Your task to perform on an android device: turn notification dots off Image 0: 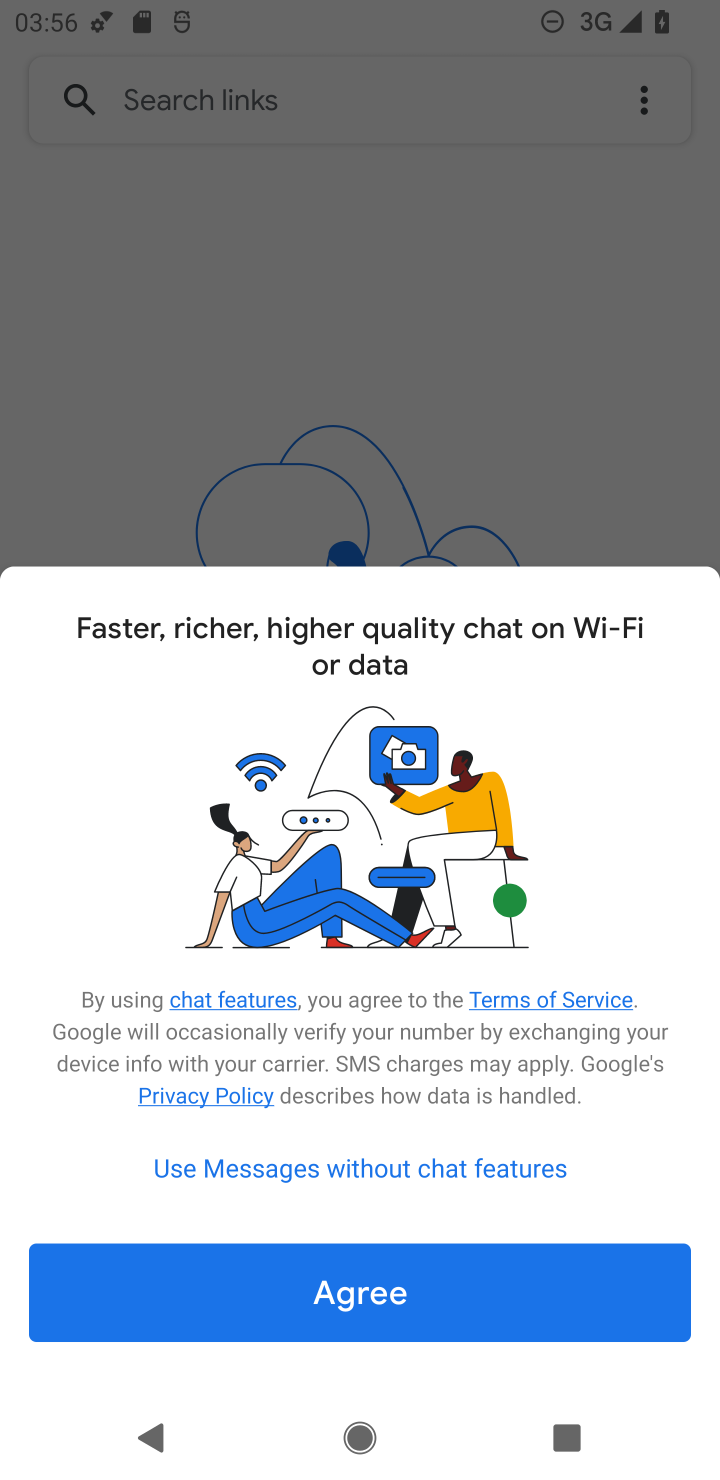
Step 0: press home button
Your task to perform on an android device: turn notification dots off Image 1: 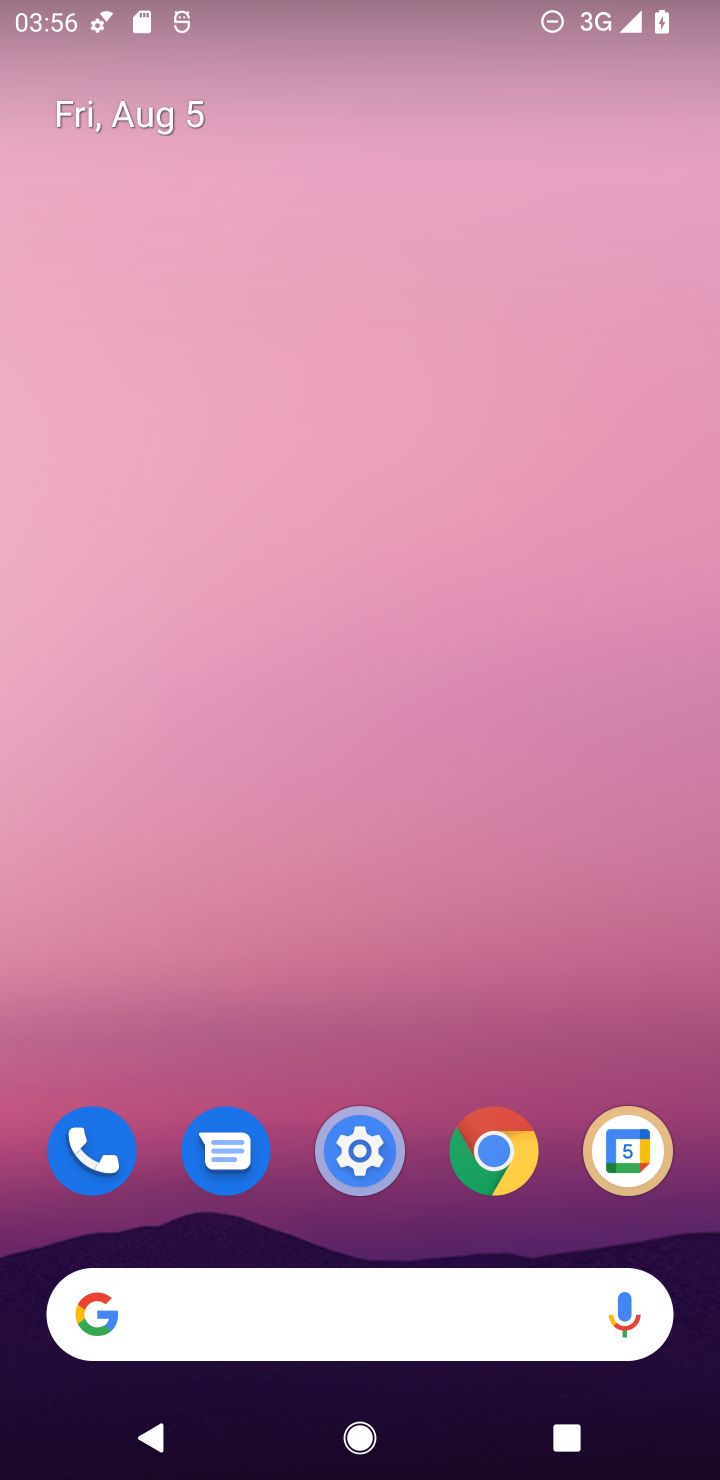
Step 1: click (357, 1126)
Your task to perform on an android device: turn notification dots off Image 2: 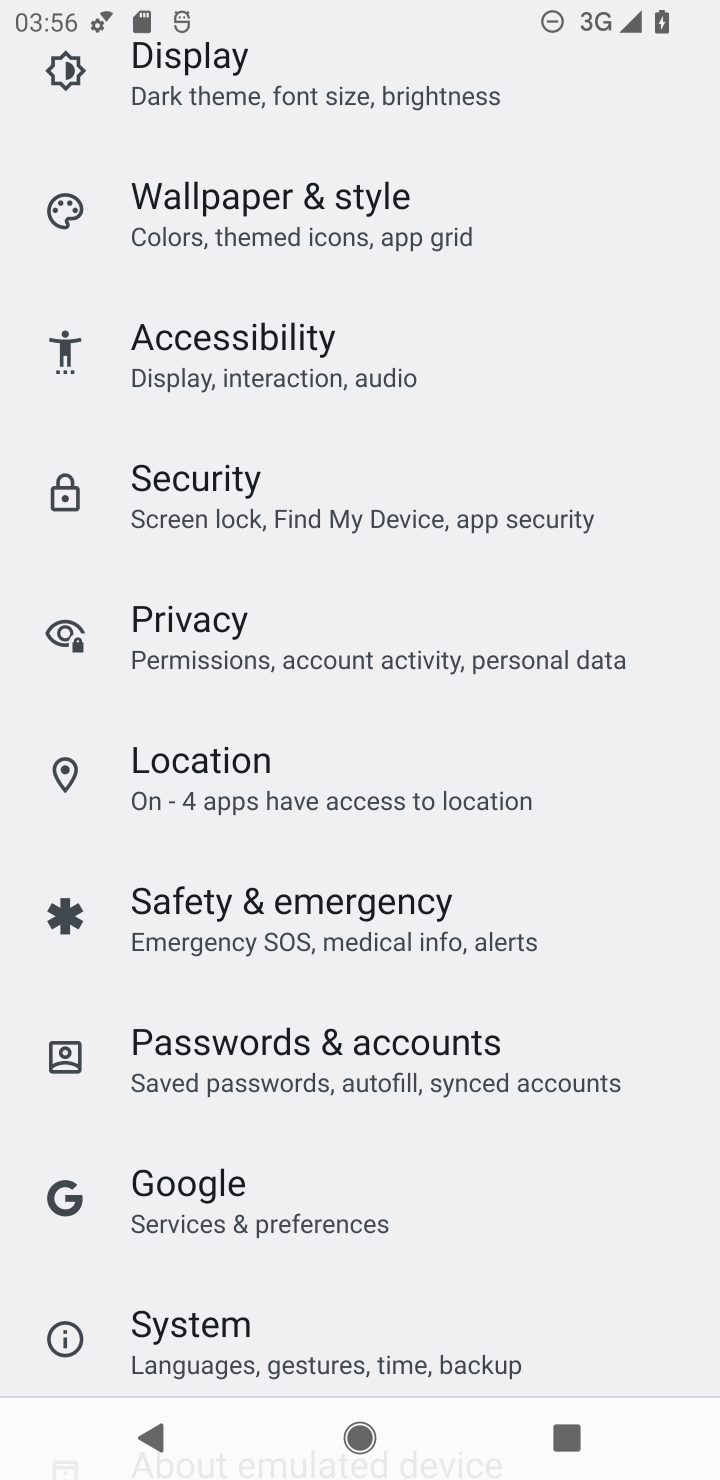
Step 2: drag from (363, 324) to (418, 971)
Your task to perform on an android device: turn notification dots off Image 3: 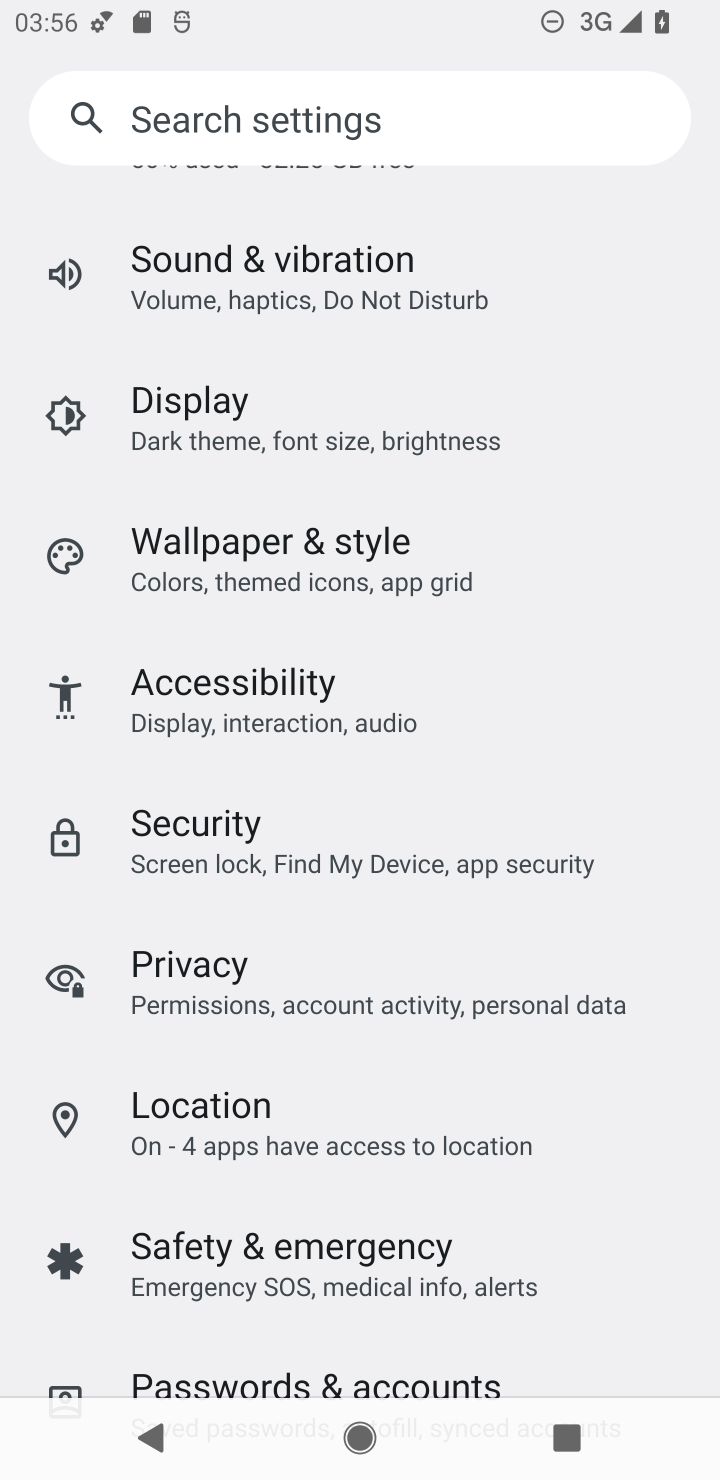
Step 3: drag from (415, 382) to (468, 900)
Your task to perform on an android device: turn notification dots off Image 4: 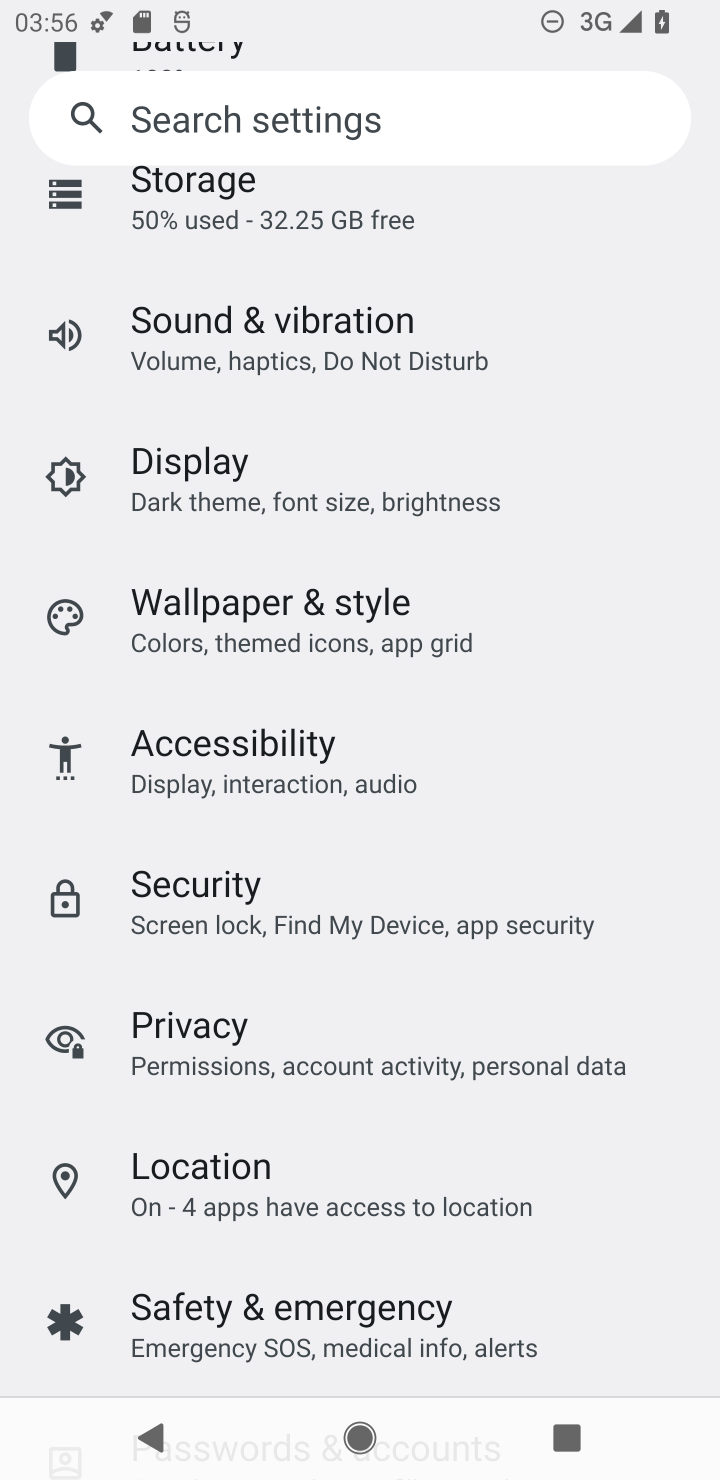
Step 4: drag from (473, 398) to (556, 1038)
Your task to perform on an android device: turn notification dots off Image 5: 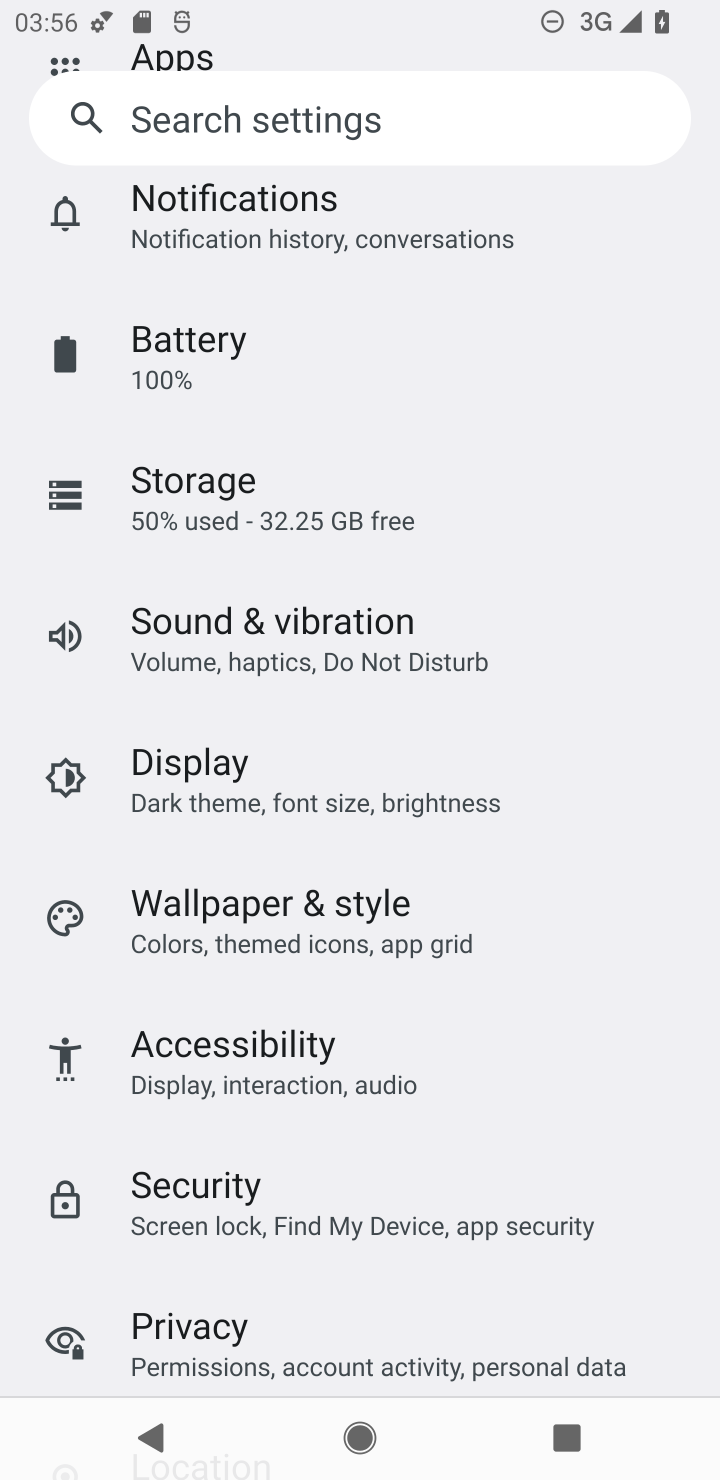
Step 5: click (541, 197)
Your task to perform on an android device: turn notification dots off Image 6: 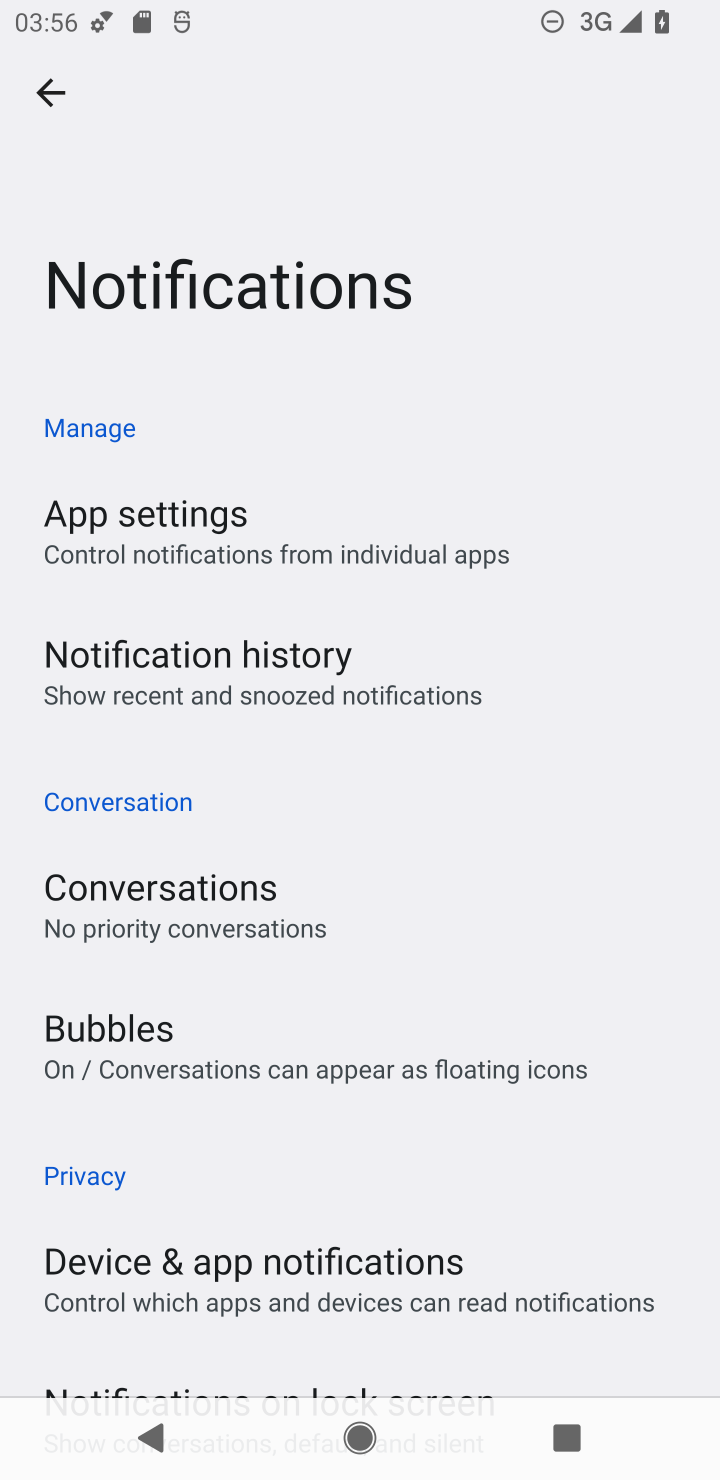
Step 6: drag from (375, 1283) to (286, 348)
Your task to perform on an android device: turn notification dots off Image 7: 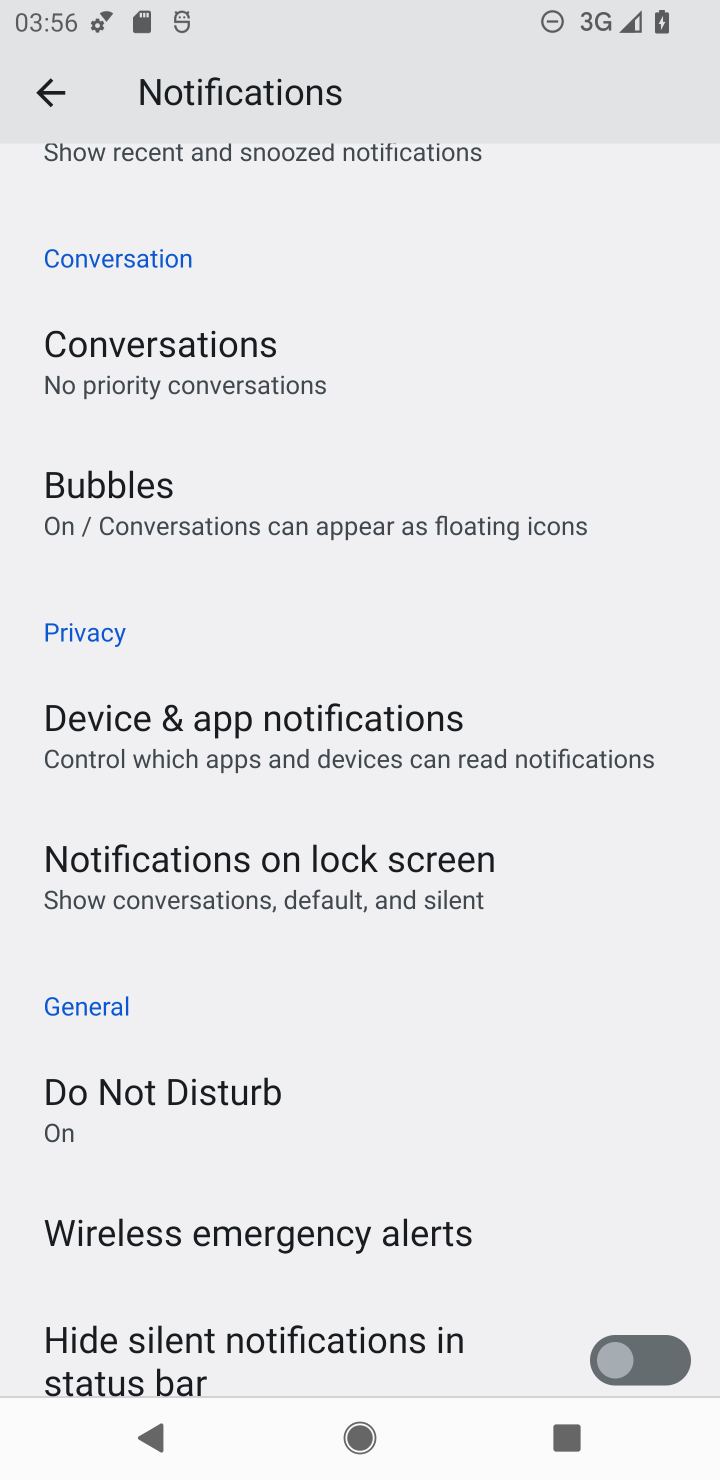
Step 7: drag from (249, 866) to (240, 251)
Your task to perform on an android device: turn notification dots off Image 8: 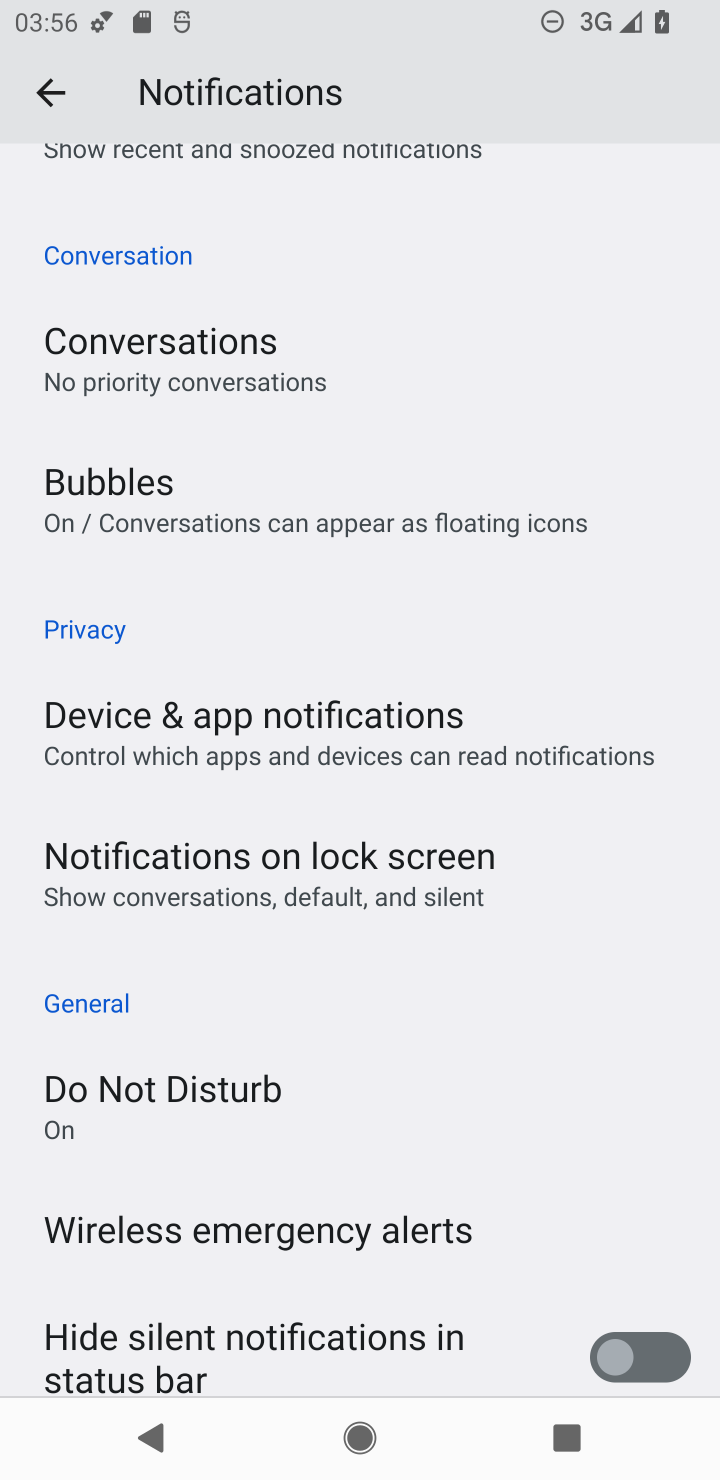
Step 8: drag from (306, 1074) to (264, 410)
Your task to perform on an android device: turn notification dots off Image 9: 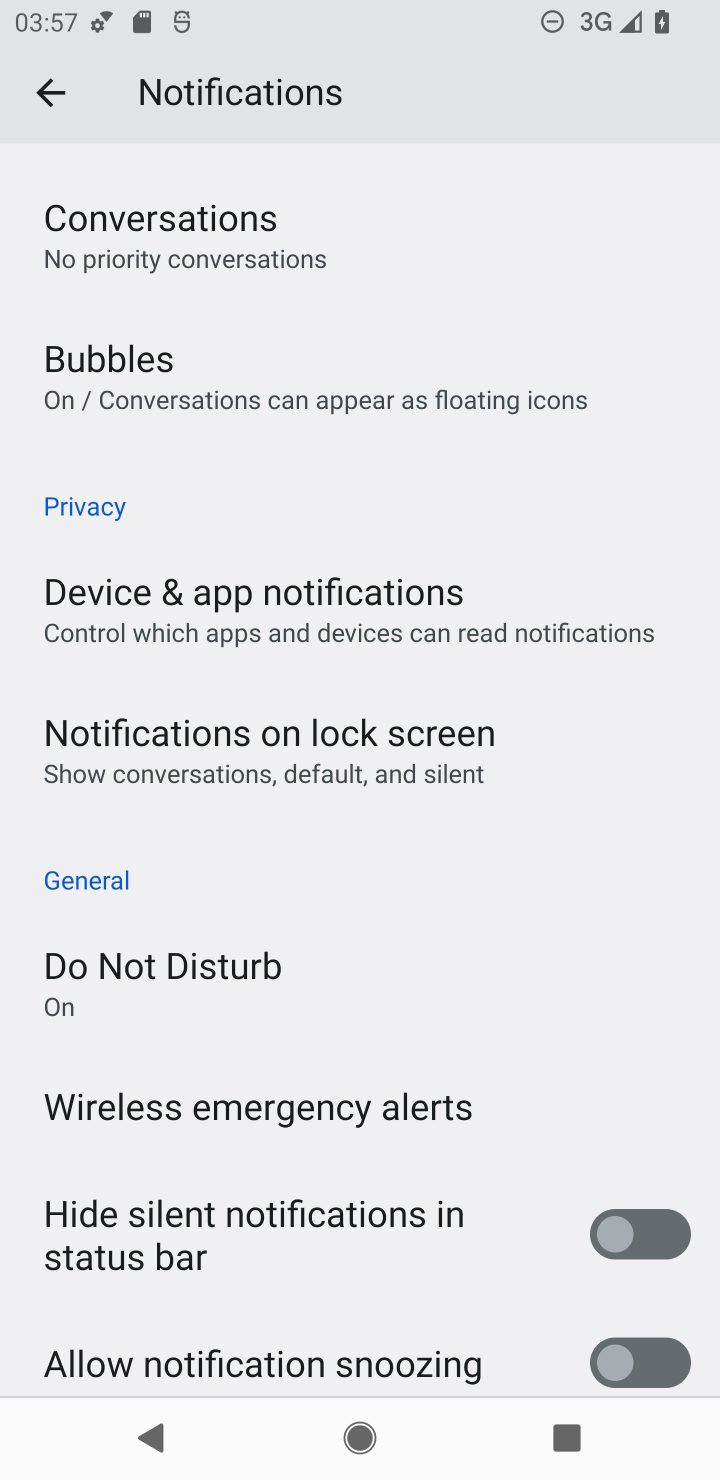
Step 9: drag from (414, 1323) to (359, 870)
Your task to perform on an android device: turn notification dots off Image 10: 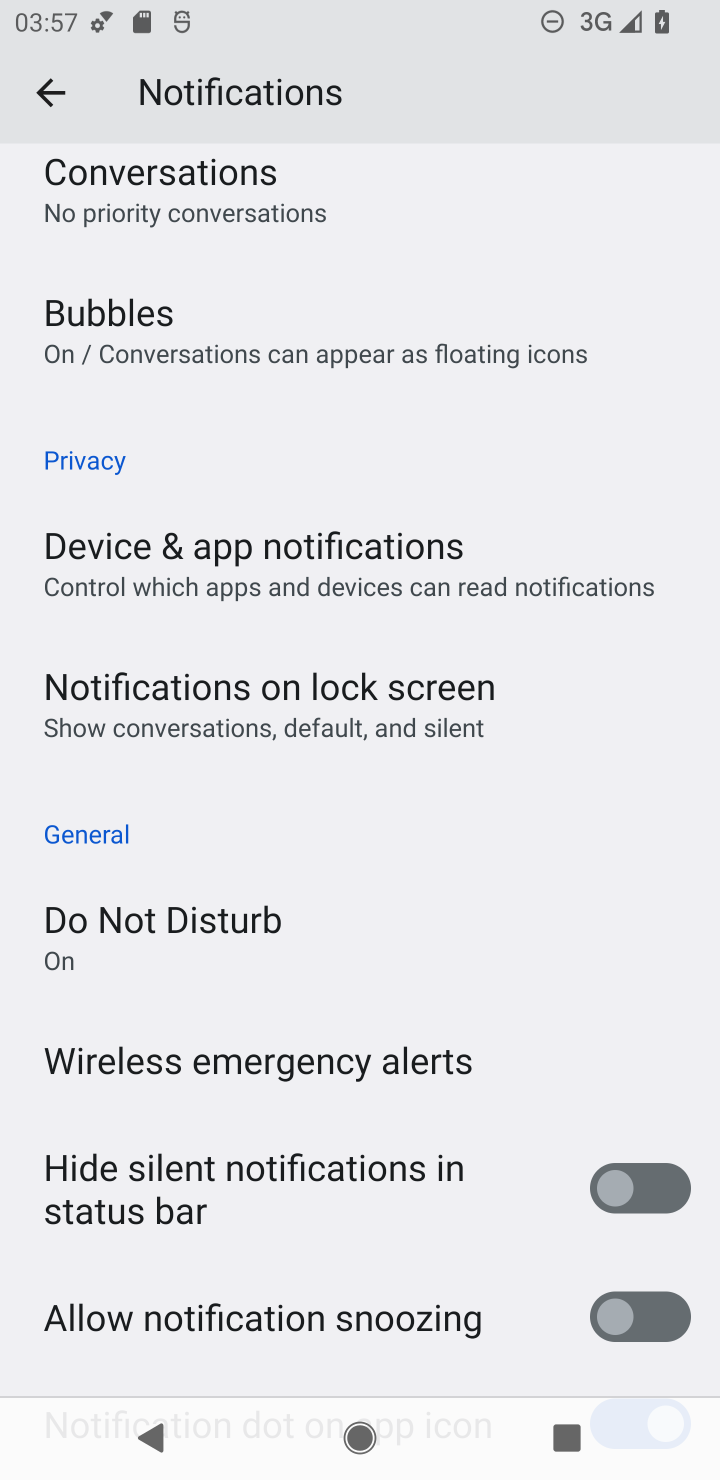
Step 10: drag from (476, 1338) to (266, 243)
Your task to perform on an android device: turn notification dots off Image 11: 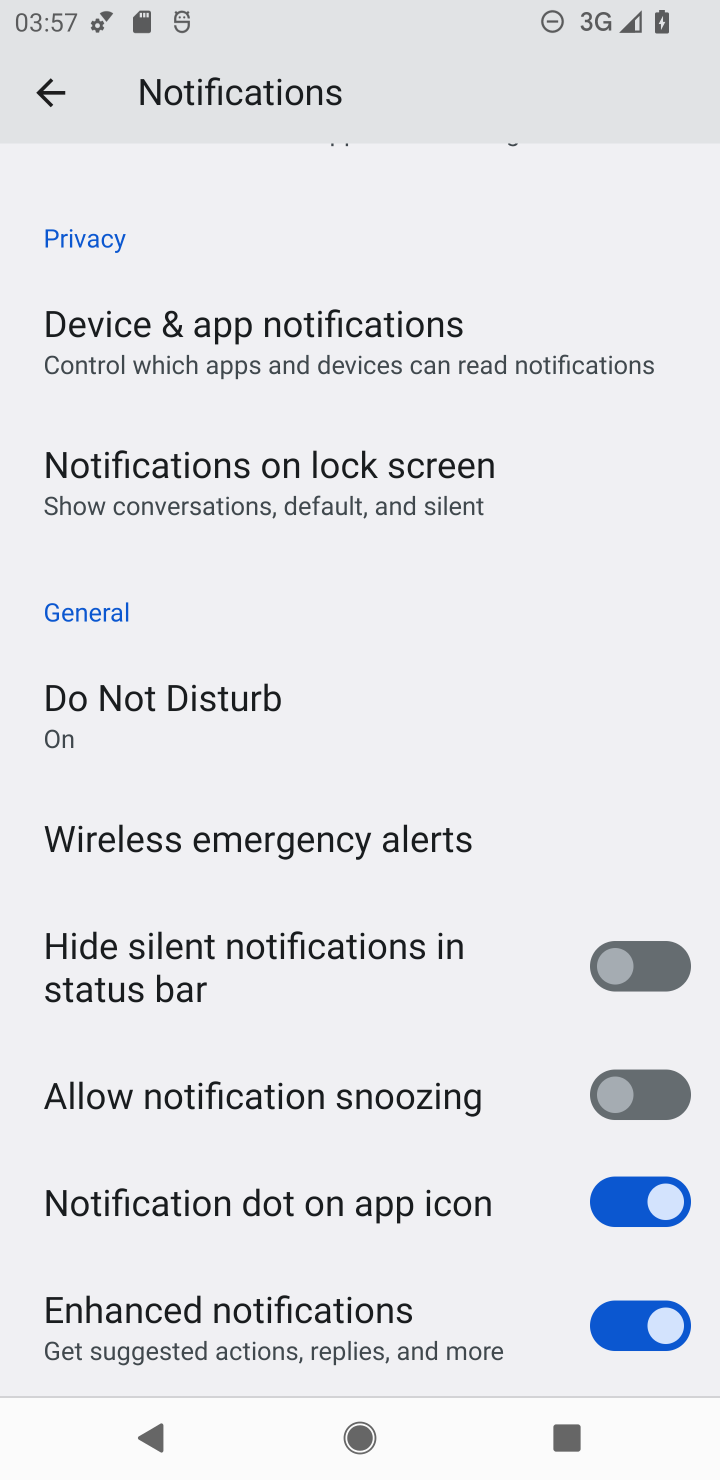
Step 11: click (673, 1213)
Your task to perform on an android device: turn notification dots off Image 12: 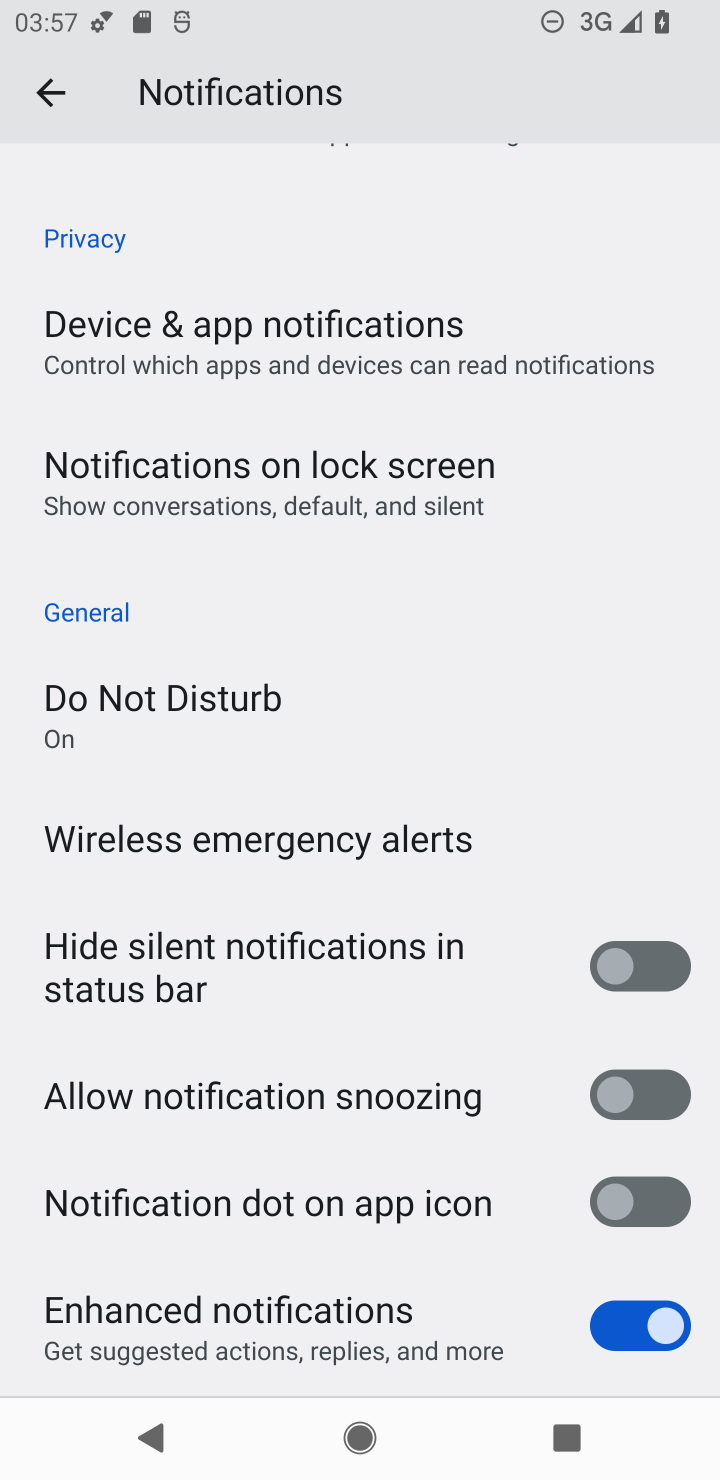
Step 12: task complete